Your task to perform on an android device: Show me the alarms in the clock app Image 0: 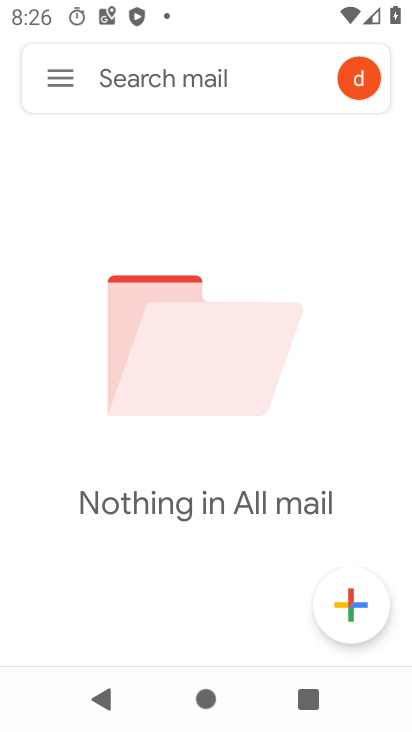
Step 0: press home button
Your task to perform on an android device: Show me the alarms in the clock app Image 1: 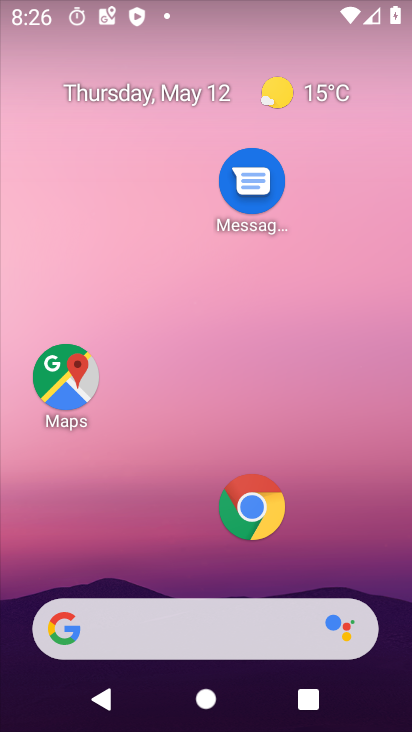
Step 1: drag from (179, 577) to (184, 117)
Your task to perform on an android device: Show me the alarms in the clock app Image 2: 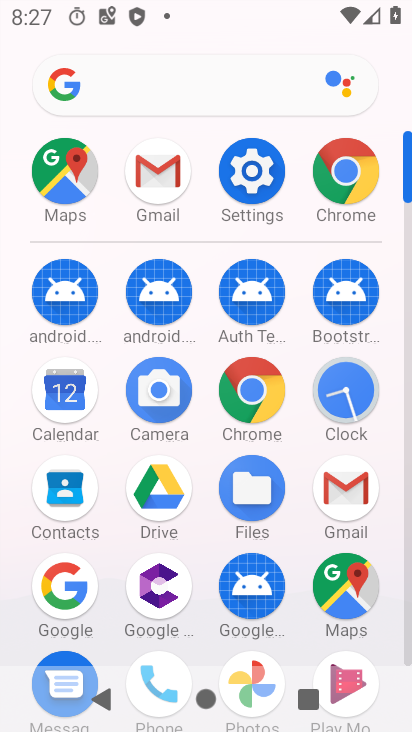
Step 2: click (352, 404)
Your task to perform on an android device: Show me the alarms in the clock app Image 3: 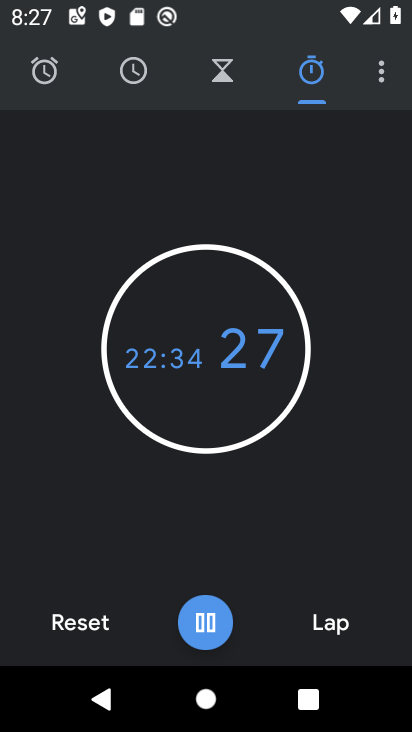
Step 3: click (120, 63)
Your task to perform on an android device: Show me the alarms in the clock app Image 4: 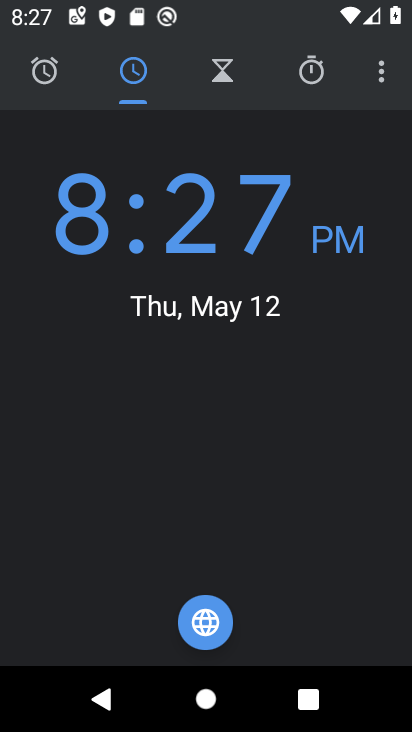
Step 4: click (93, 63)
Your task to perform on an android device: Show me the alarms in the clock app Image 5: 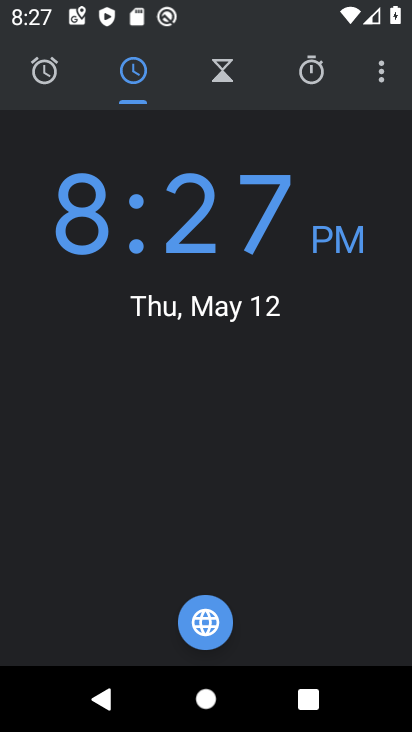
Step 5: click (71, 71)
Your task to perform on an android device: Show me the alarms in the clock app Image 6: 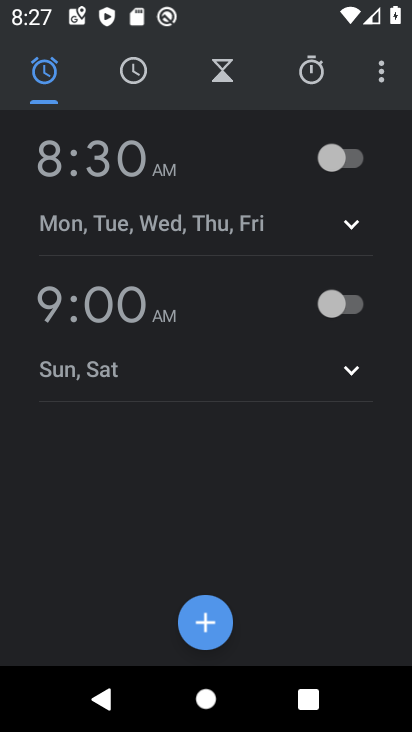
Step 6: task complete